Your task to perform on an android device: toggle notifications settings in the gmail app Image 0: 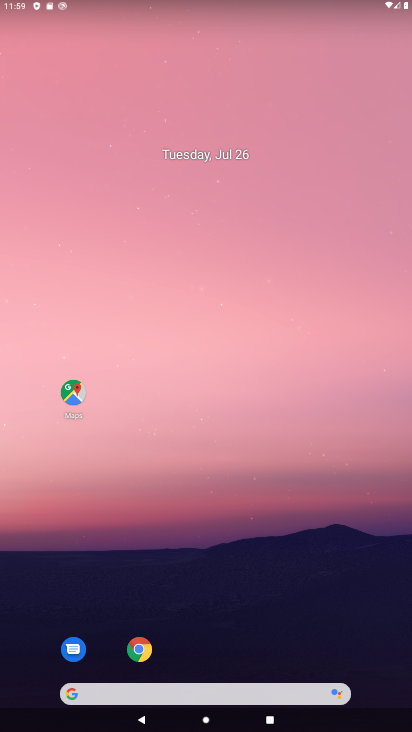
Step 0: drag from (199, 613) to (132, 5)
Your task to perform on an android device: toggle notifications settings in the gmail app Image 1: 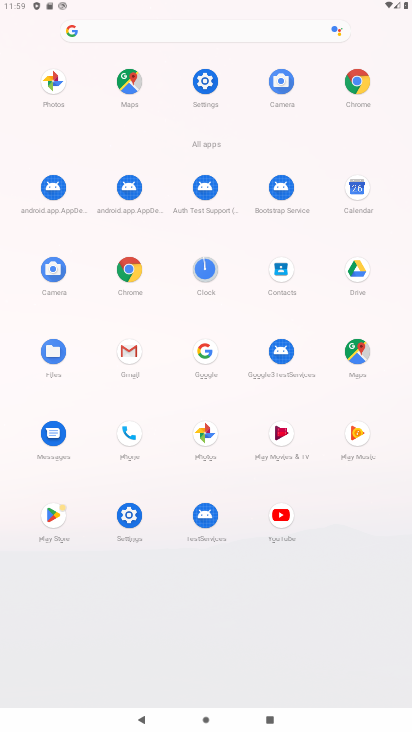
Step 1: click (127, 350)
Your task to perform on an android device: toggle notifications settings in the gmail app Image 2: 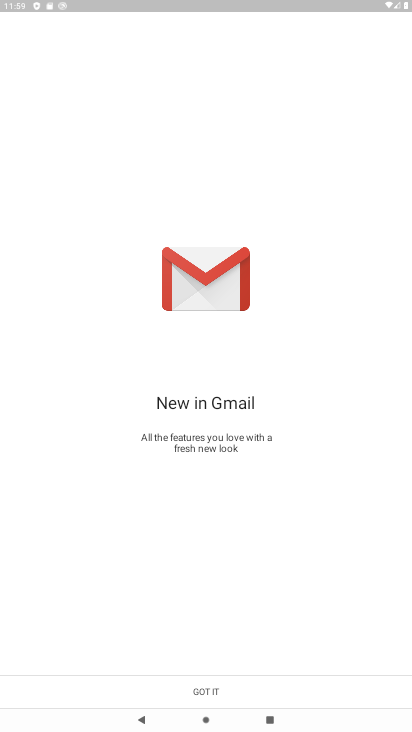
Step 2: click (209, 688)
Your task to perform on an android device: toggle notifications settings in the gmail app Image 3: 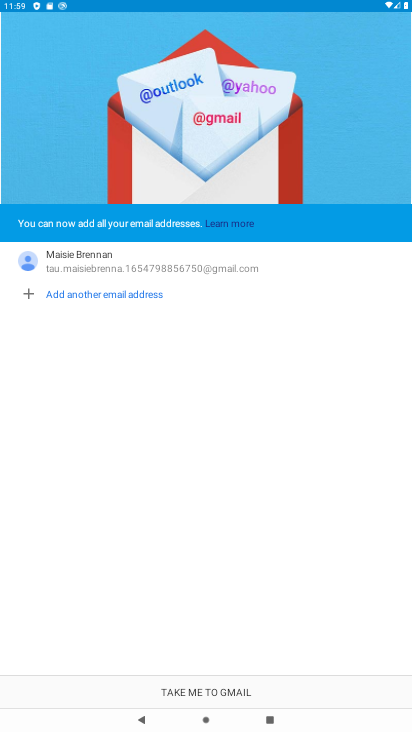
Step 3: click (209, 688)
Your task to perform on an android device: toggle notifications settings in the gmail app Image 4: 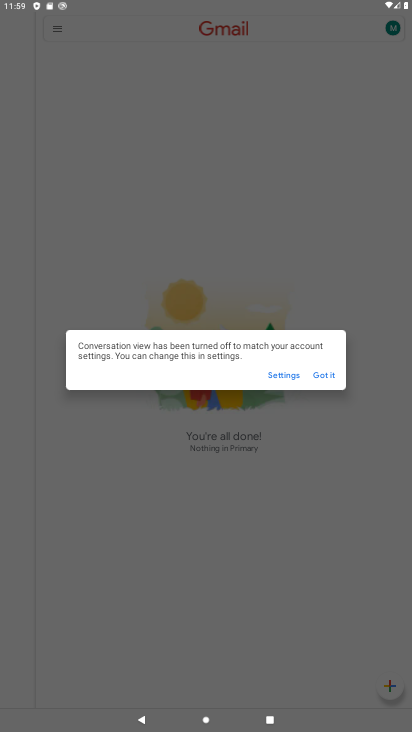
Step 4: click (315, 376)
Your task to perform on an android device: toggle notifications settings in the gmail app Image 5: 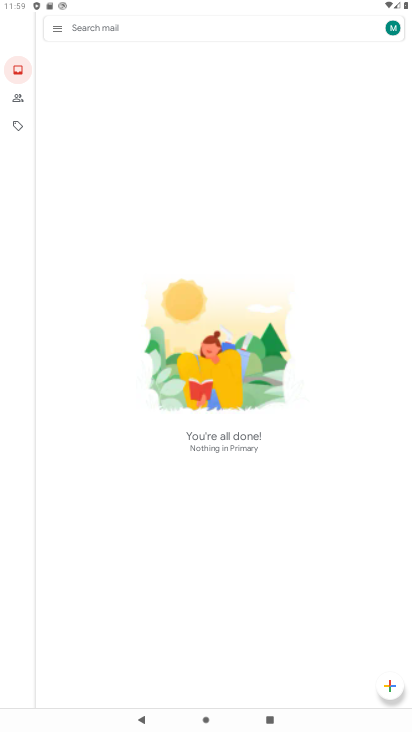
Step 5: click (60, 23)
Your task to perform on an android device: toggle notifications settings in the gmail app Image 6: 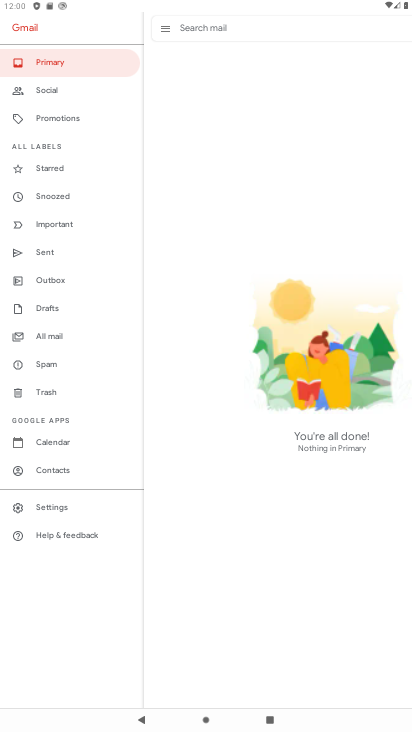
Step 6: click (54, 509)
Your task to perform on an android device: toggle notifications settings in the gmail app Image 7: 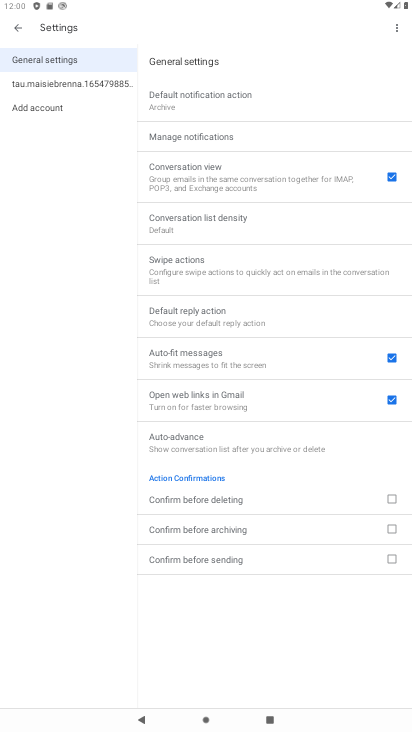
Step 7: click (197, 133)
Your task to perform on an android device: toggle notifications settings in the gmail app Image 8: 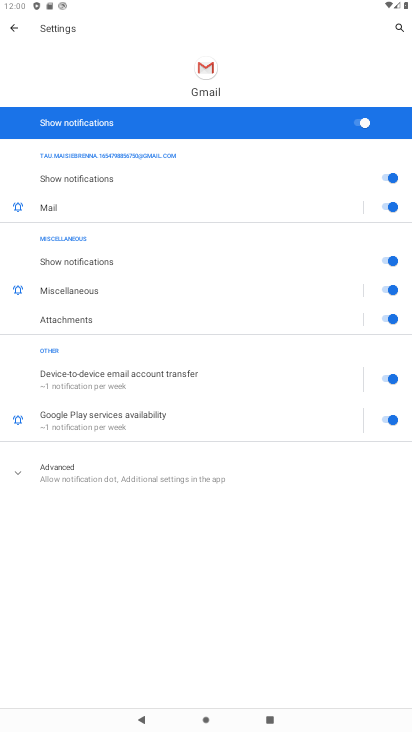
Step 8: click (356, 121)
Your task to perform on an android device: toggle notifications settings in the gmail app Image 9: 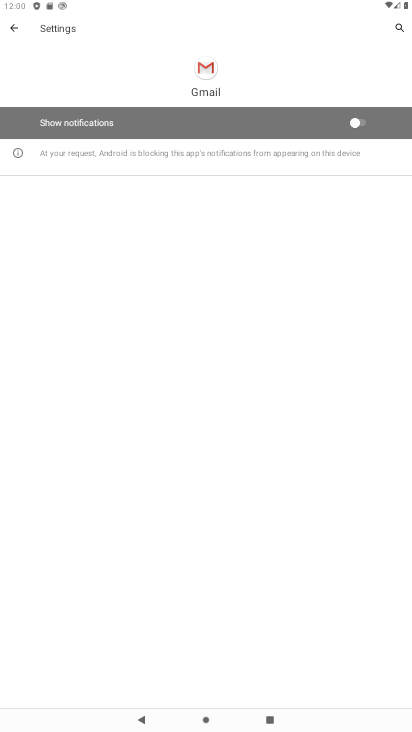
Step 9: task complete